Your task to perform on an android device: turn notification dots off Image 0: 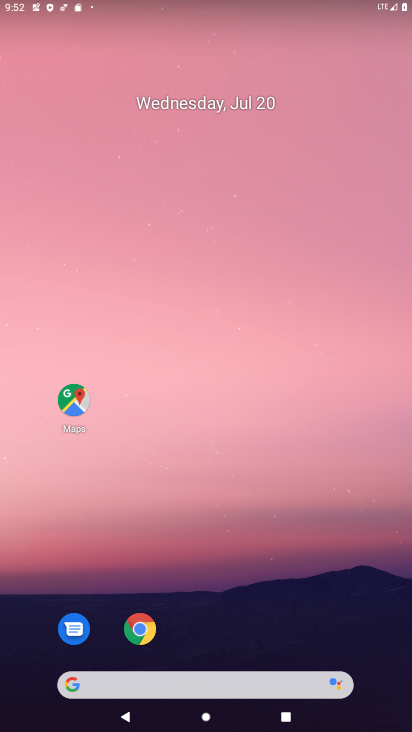
Step 0: press home button
Your task to perform on an android device: turn notification dots off Image 1: 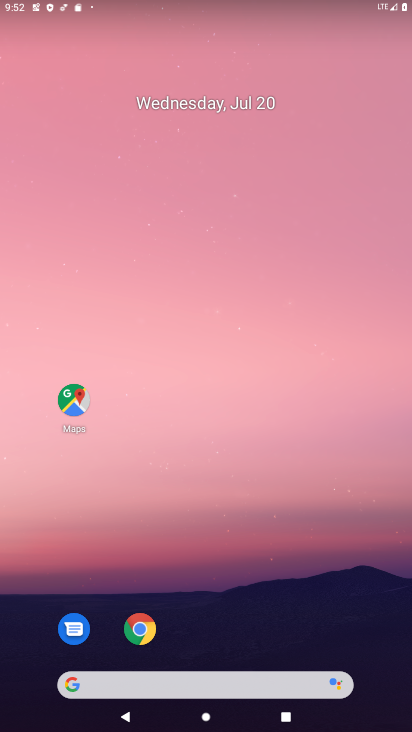
Step 1: drag from (265, 647) to (230, 46)
Your task to perform on an android device: turn notification dots off Image 2: 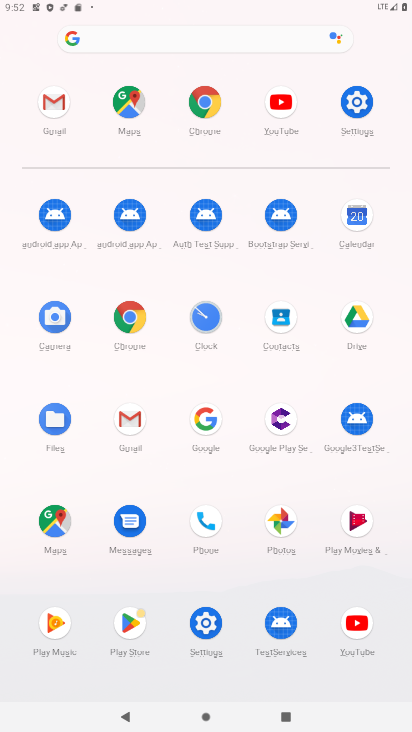
Step 2: click (203, 611)
Your task to perform on an android device: turn notification dots off Image 3: 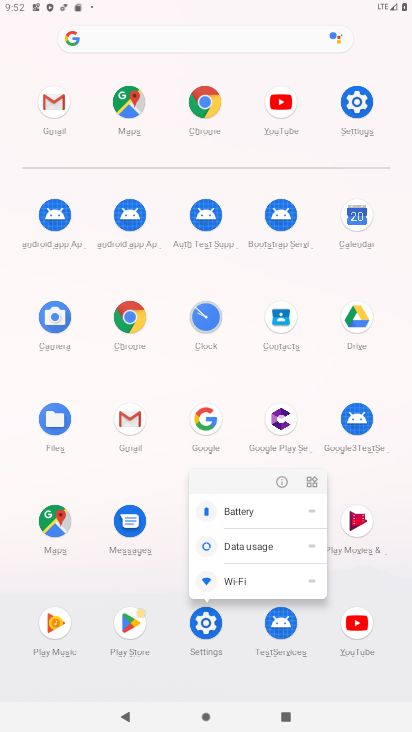
Step 3: click (203, 611)
Your task to perform on an android device: turn notification dots off Image 4: 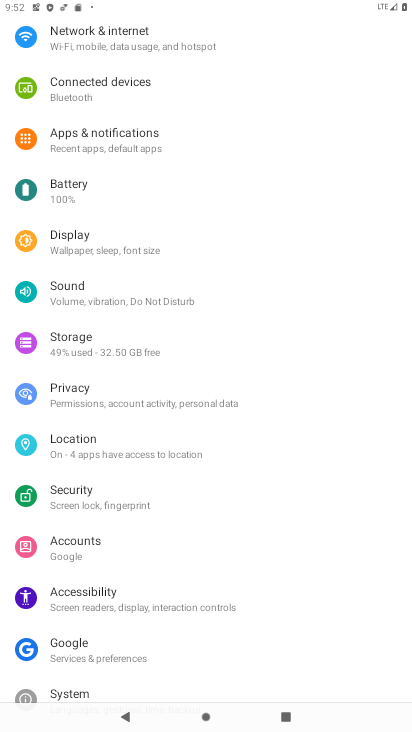
Step 4: click (106, 145)
Your task to perform on an android device: turn notification dots off Image 5: 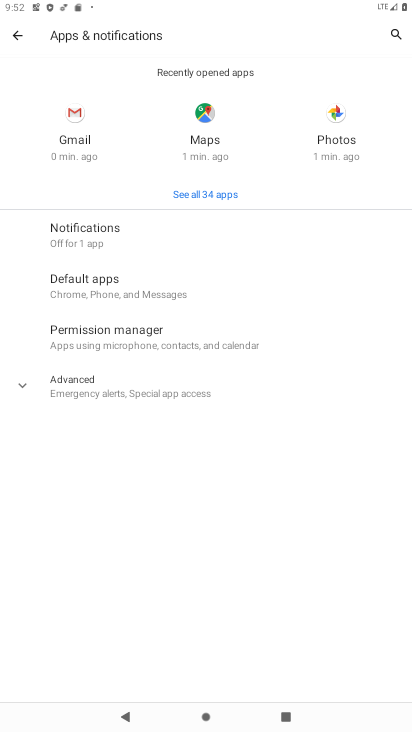
Step 5: click (109, 227)
Your task to perform on an android device: turn notification dots off Image 6: 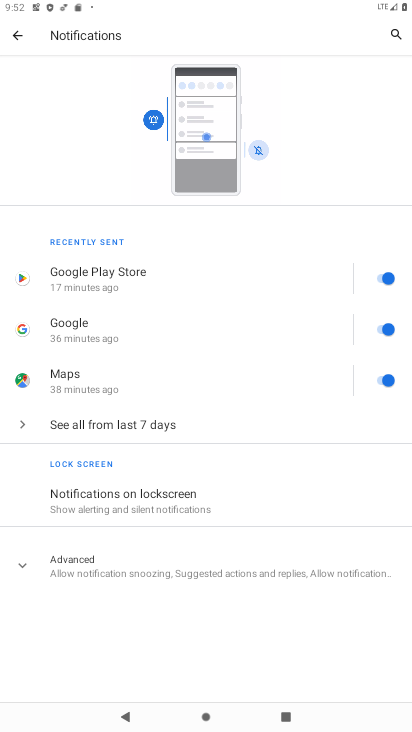
Step 6: click (66, 566)
Your task to perform on an android device: turn notification dots off Image 7: 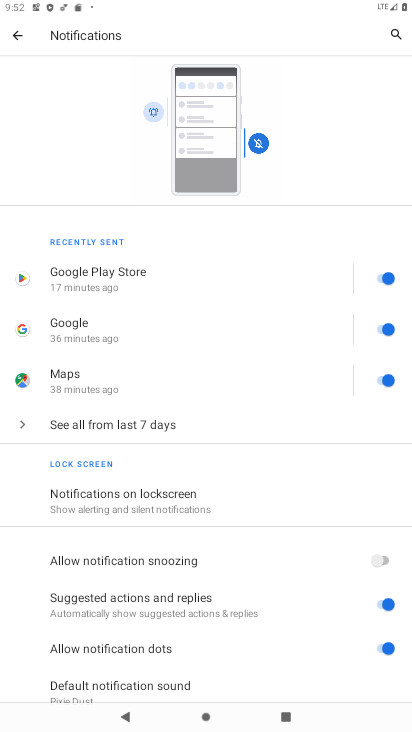
Step 7: click (141, 645)
Your task to perform on an android device: turn notification dots off Image 8: 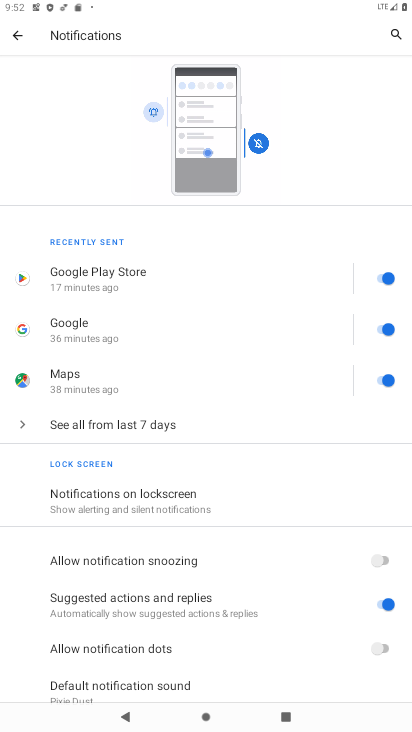
Step 8: task complete